Your task to perform on an android device: Open calendar and show me the third week of next month Image 0: 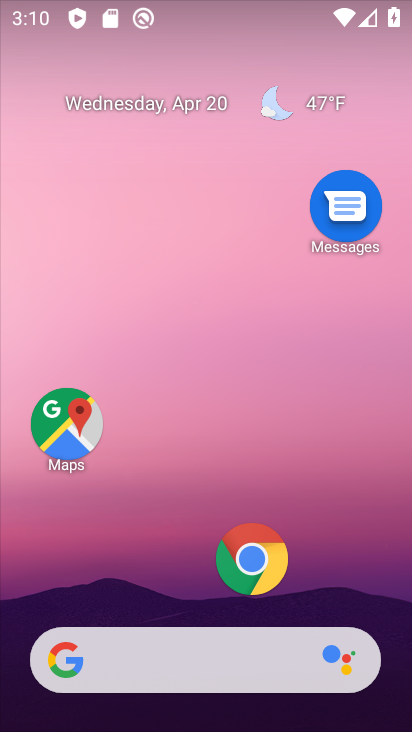
Step 0: drag from (123, 248) to (148, 112)
Your task to perform on an android device: Open calendar and show me the third week of next month Image 1: 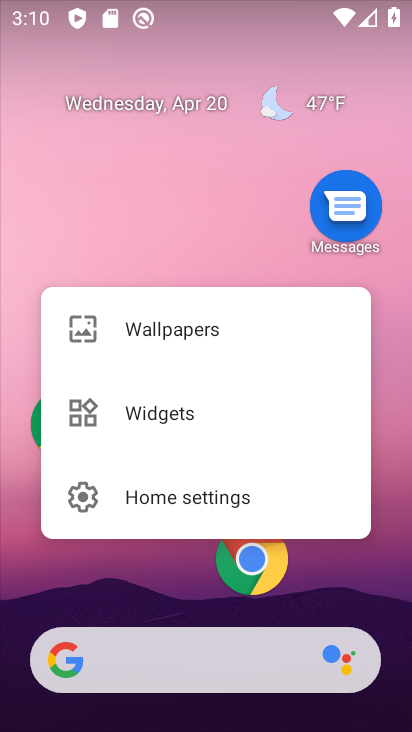
Step 1: click (384, 571)
Your task to perform on an android device: Open calendar and show me the third week of next month Image 2: 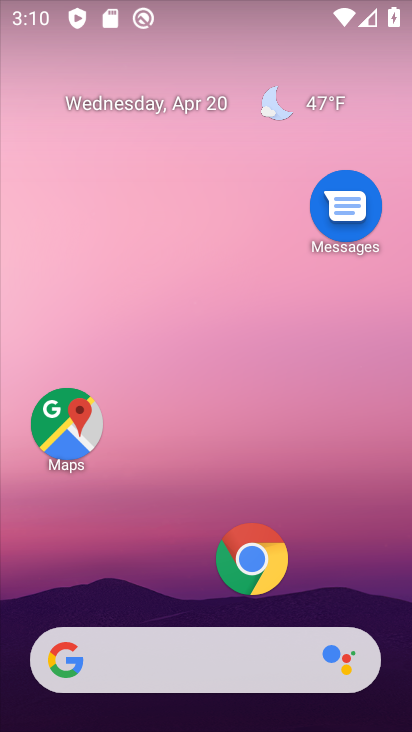
Step 2: drag from (131, 633) to (194, 82)
Your task to perform on an android device: Open calendar and show me the third week of next month Image 3: 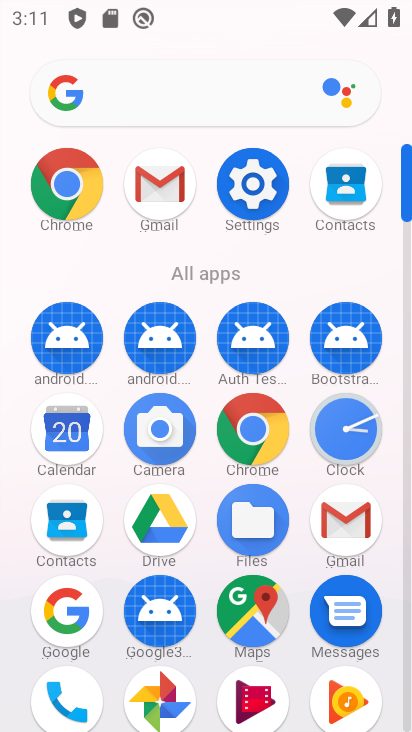
Step 3: click (78, 450)
Your task to perform on an android device: Open calendar and show me the third week of next month Image 4: 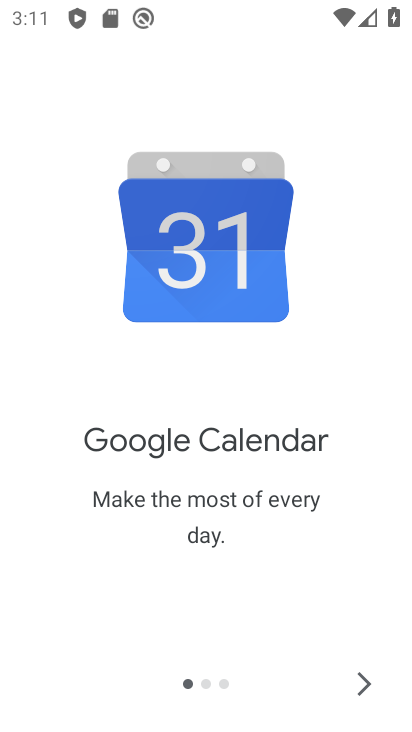
Step 4: click (370, 692)
Your task to perform on an android device: Open calendar and show me the third week of next month Image 5: 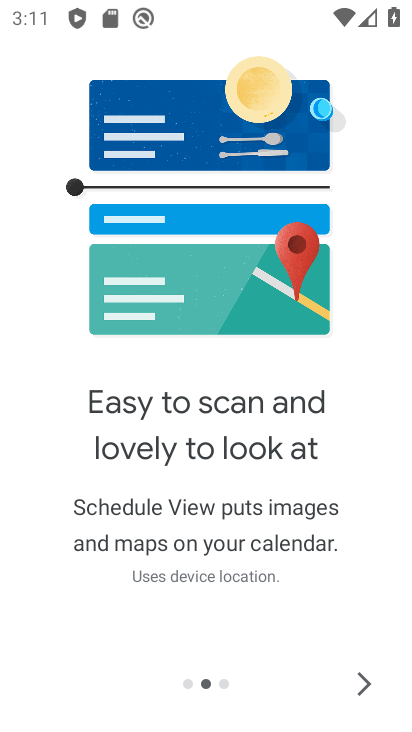
Step 5: click (370, 692)
Your task to perform on an android device: Open calendar and show me the third week of next month Image 6: 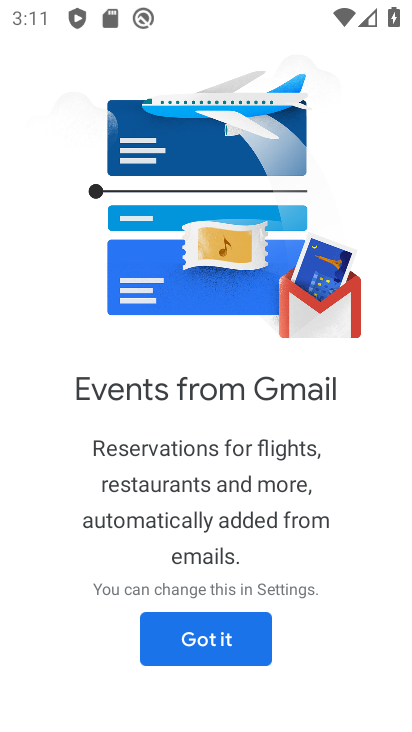
Step 6: click (214, 641)
Your task to perform on an android device: Open calendar and show me the third week of next month Image 7: 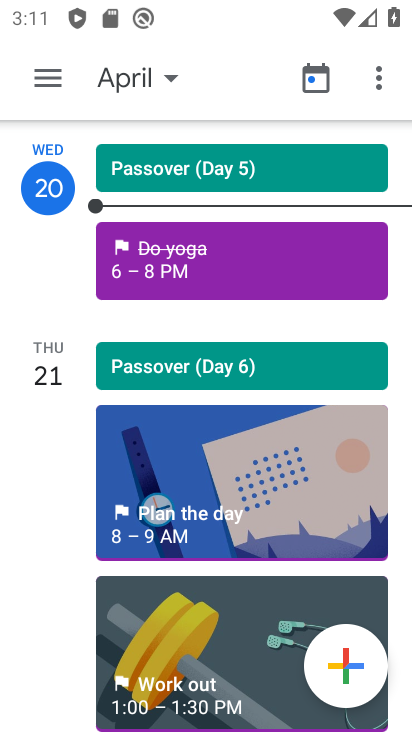
Step 7: click (125, 86)
Your task to perform on an android device: Open calendar and show me the third week of next month Image 8: 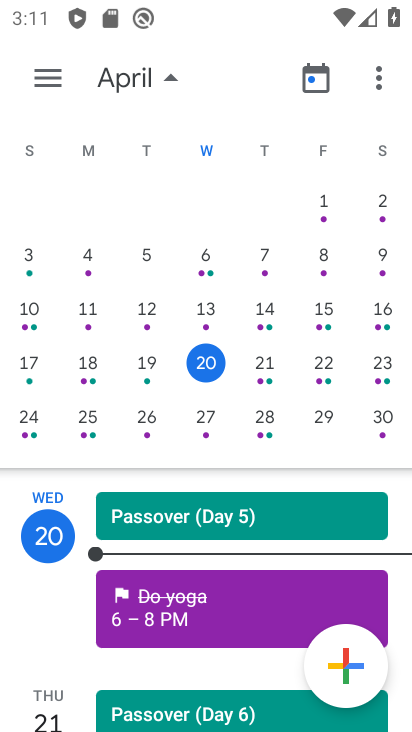
Step 8: drag from (338, 322) to (4, 304)
Your task to perform on an android device: Open calendar and show me the third week of next month Image 9: 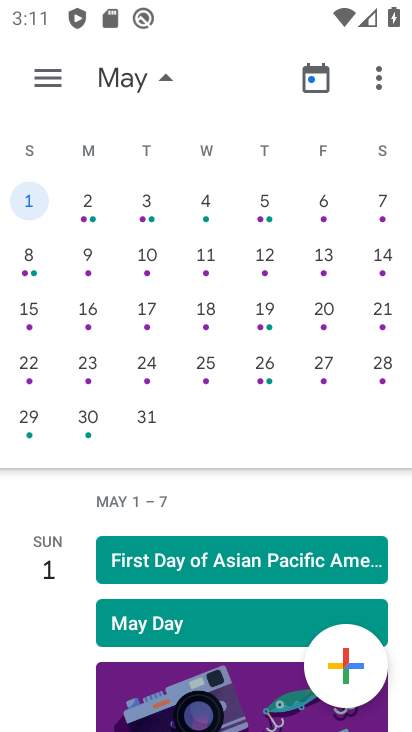
Step 9: click (35, 371)
Your task to perform on an android device: Open calendar and show me the third week of next month Image 10: 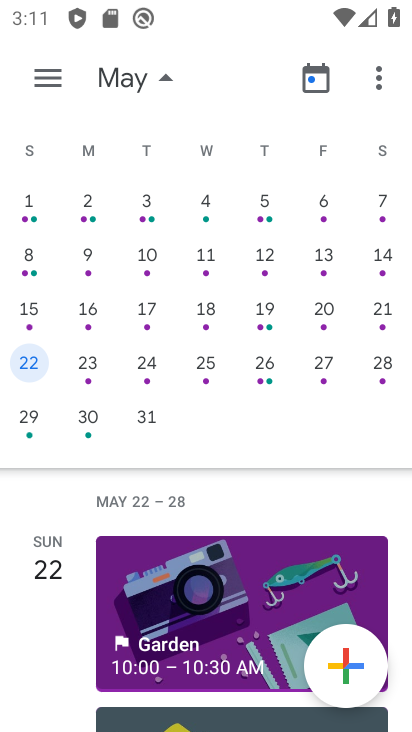
Step 10: click (41, 77)
Your task to perform on an android device: Open calendar and show me the third week of next month Image 11: 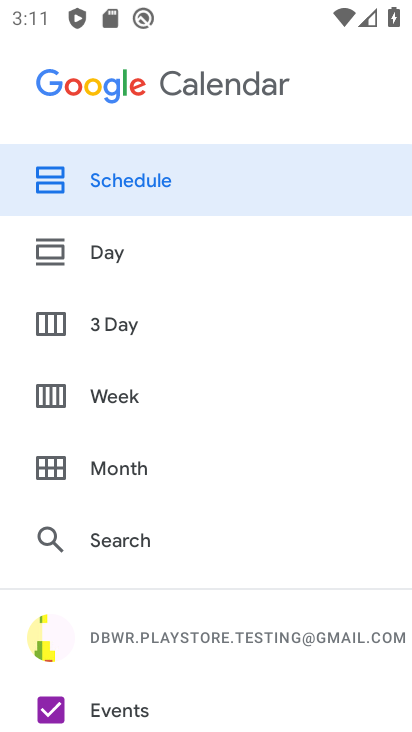
Step 11: click (146, 399)
Your task to perform on an android device: Open calendar and show me the third week of next month Image 12: 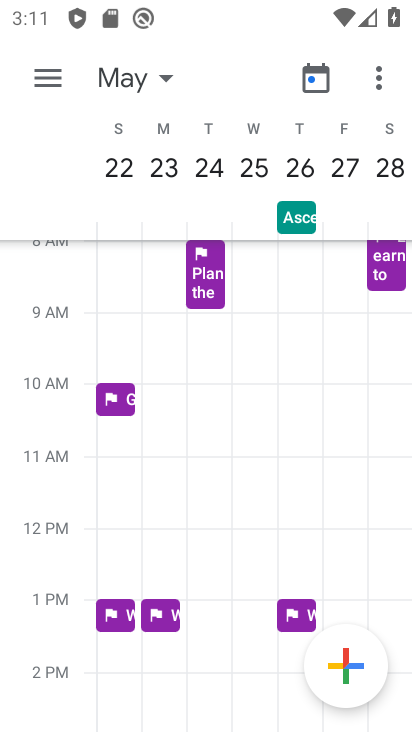
Step 12: task complete